Your task to perform on an android device: Open Google Maps and go to "Timeline" Image 0: 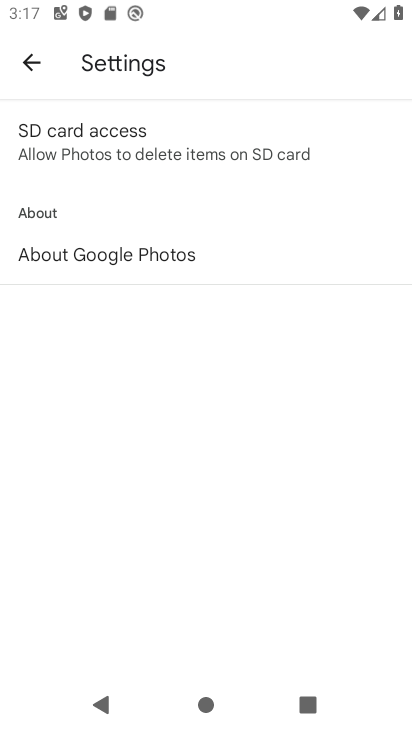
Step 0: press home button
Your task to perform on an android device: Open Google Maps and go to "Timeline" Image 1: 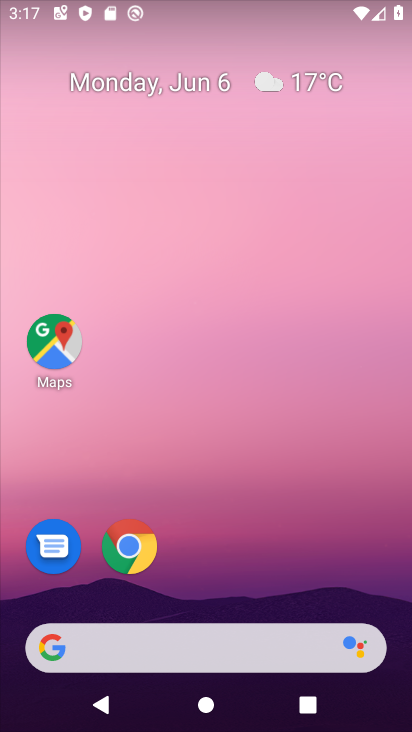
Step 1: click (54, 375)
Your task to perform on an android device: Open Google Maps and go to "Timeline" Image 2: 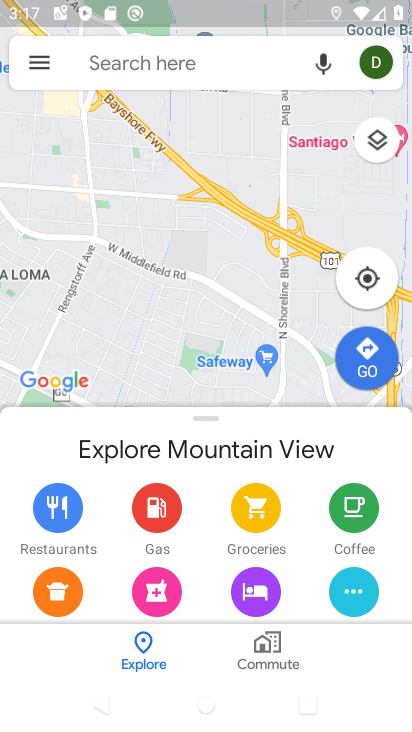
Step 2: click (33, 54)
Your task to perform on an android device: Open Google Maps and go to "Timeline" Image 3: 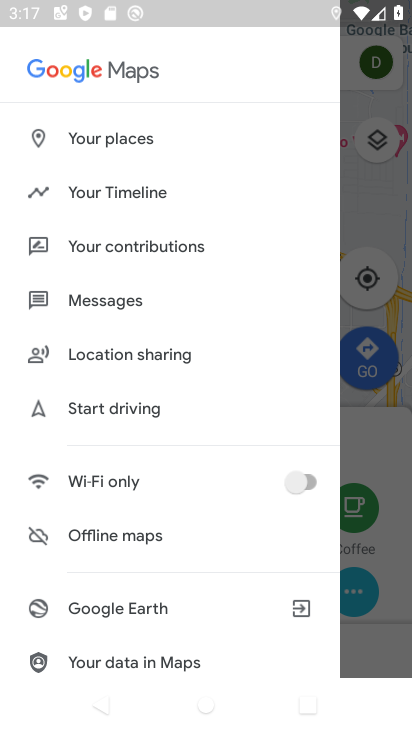
Step 3: click (90, 181)
Your task to perform on an android device: Open Google Maps and go to "Timeline" Image 4: 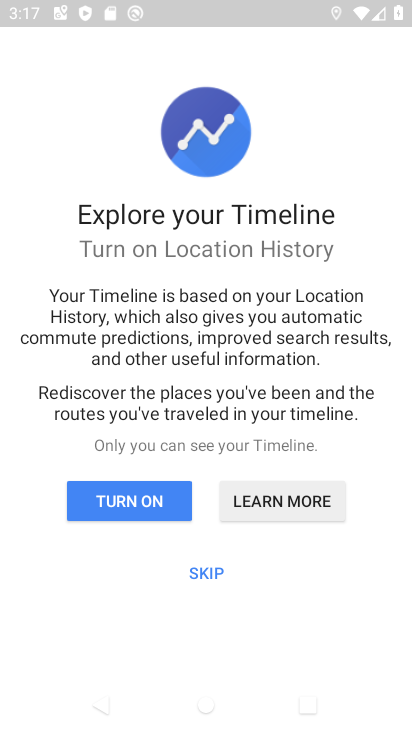
Step 4: task complete